Your task to perform on an android device: turn on the 24-hour format for clock Image 0: 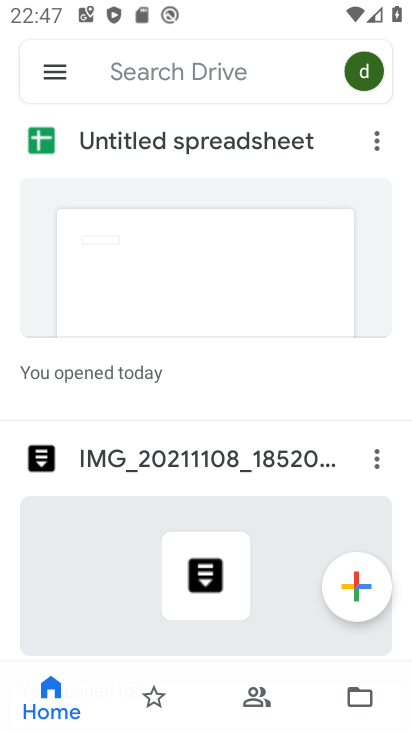
Step 0: press home button
Your task to perform on an android device: turn on the 24-hour format for clock Image 1: 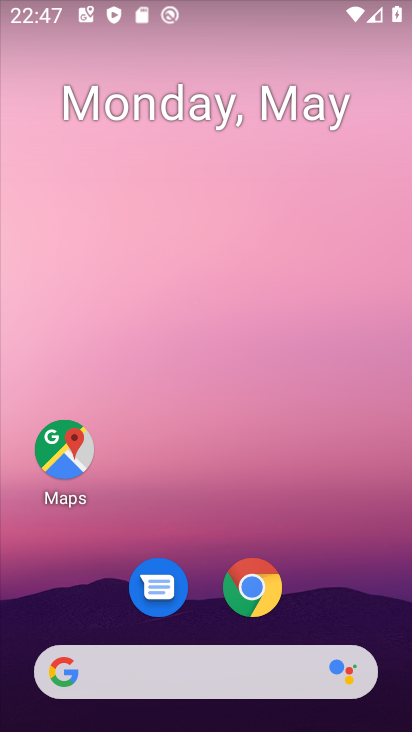
Step 1: drag from (206, 641) to (166, 9)
Your task to perform on an android device: turn on the 24-hour format for clock Image 2: 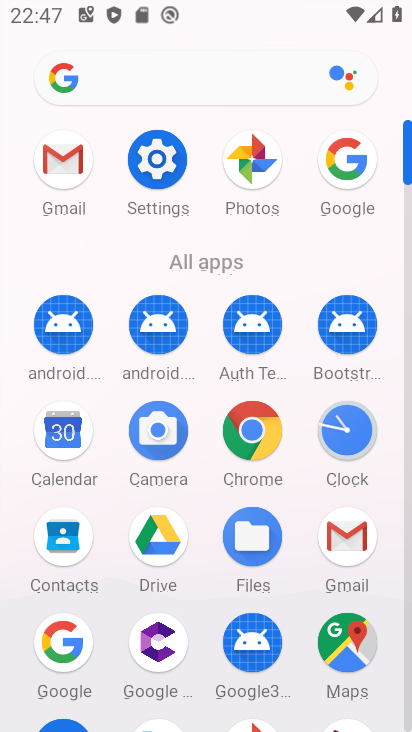
Step 2: click (349, 437)
Your task to perform on an android device: turn on the 24-hour format for clock Image 3: 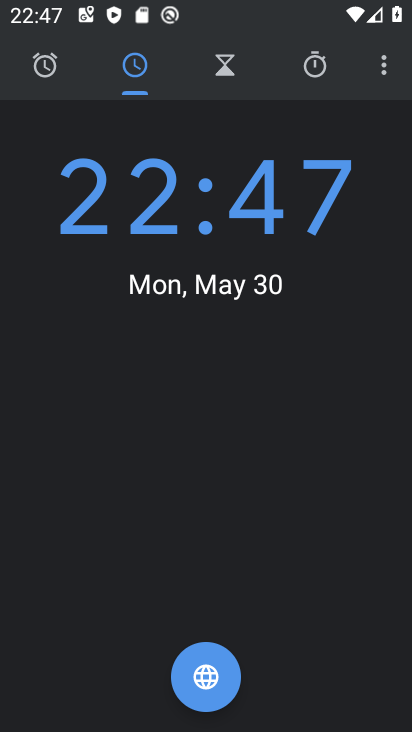
Step 3: click (389, 59)
Your task to perform on an android device: turn on the 24-hour format for clock Image 4: 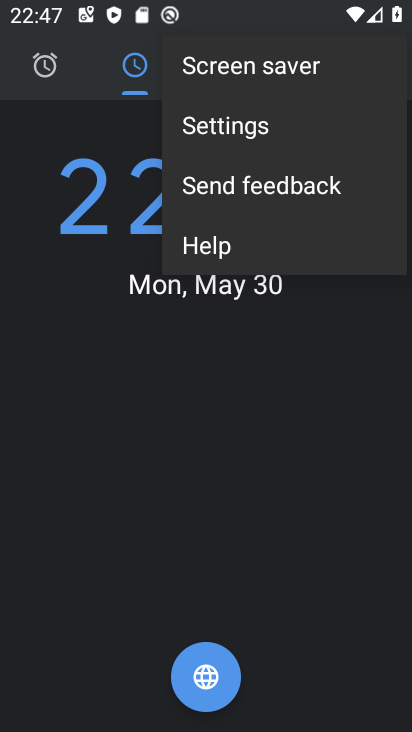
Step 4: click (224, 133)
Your task to perform on an android device: turn on the 24-hour format for clock Image 5: 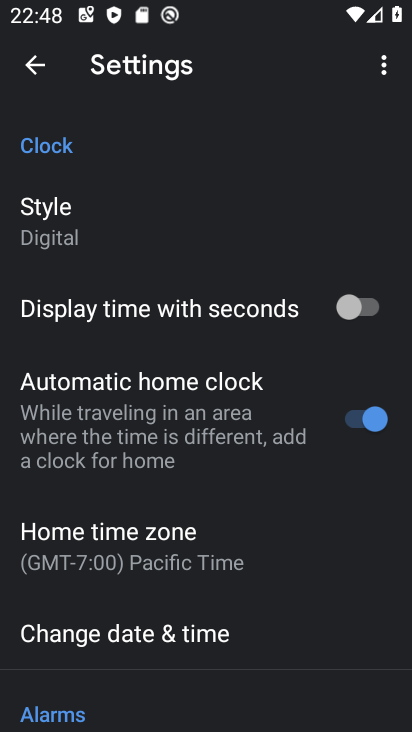
Step 5: click (137, 633)
Your task to perform on an android device: turn on the 24-hour format for clock Image 6: 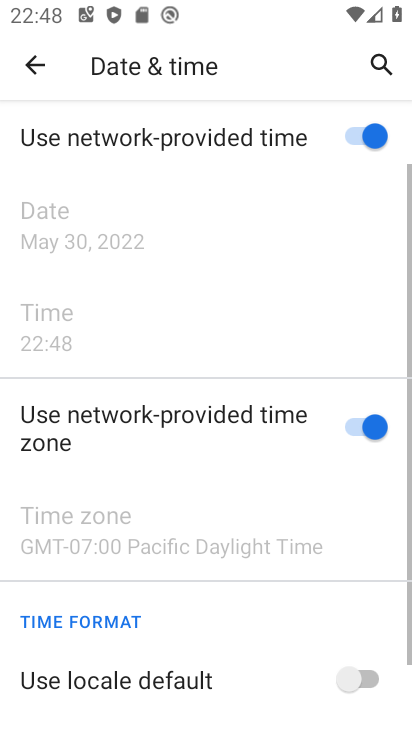
Step 6: task complete